Your task to perform on an android device: set default search engine in the chrome app Image 0: 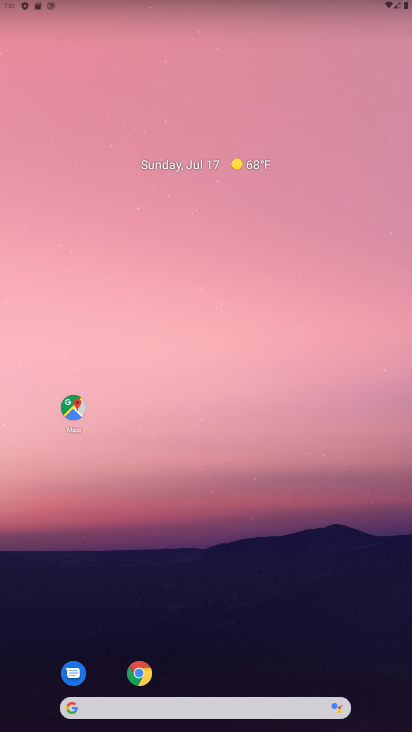
Step 0: drag from (268, 570) to (138, 4)
Your task to perform on an android device: set default search engine in the chrome app Image 1: 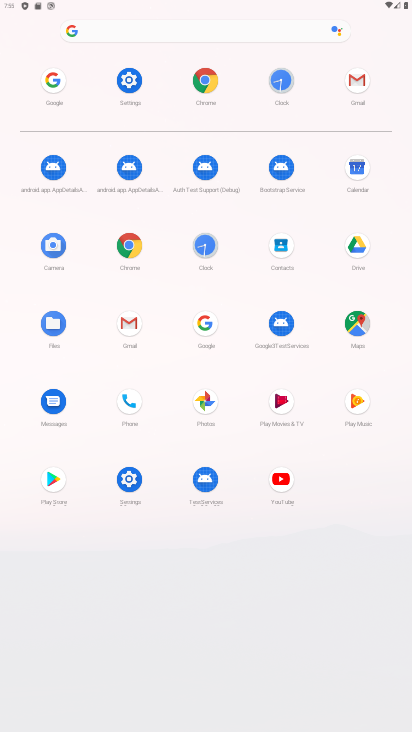
Step 1: click (210, 78)
Your task to perform on an android device: set default search engine in the chrome app Image 2: 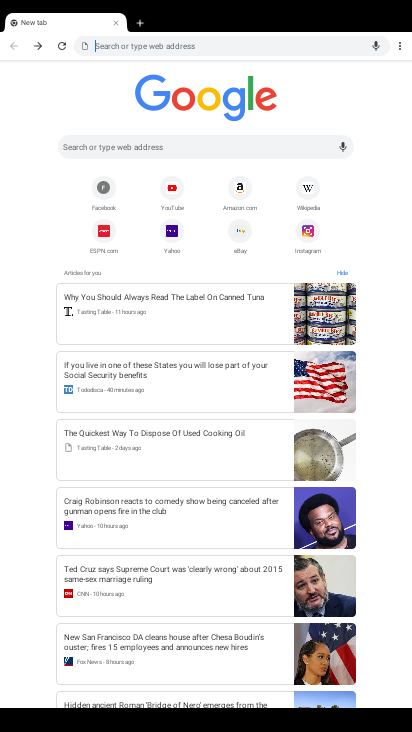
Step 2: drag from (407, 48) to (300, 223)
Your task to perform on an android device: set default search engine in the chrome app Image 3: 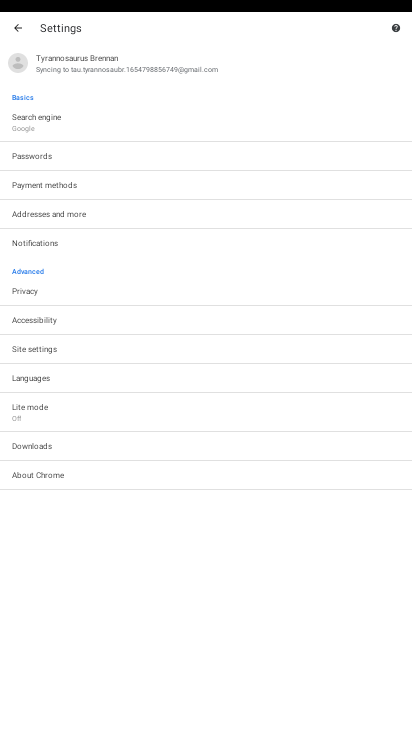
Step 3: click (23, 127)
Your task to perform on an android device: set default search engine in the chrome app Image 4: 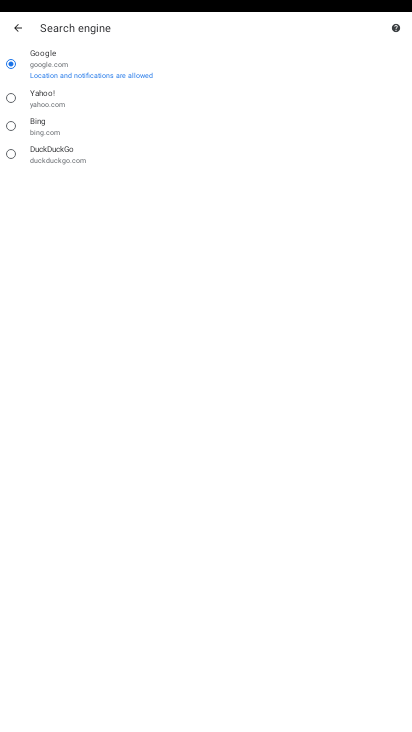
Step 4: task complete